Your task to perform on an android device: turn off notifications in google photos Image 0: 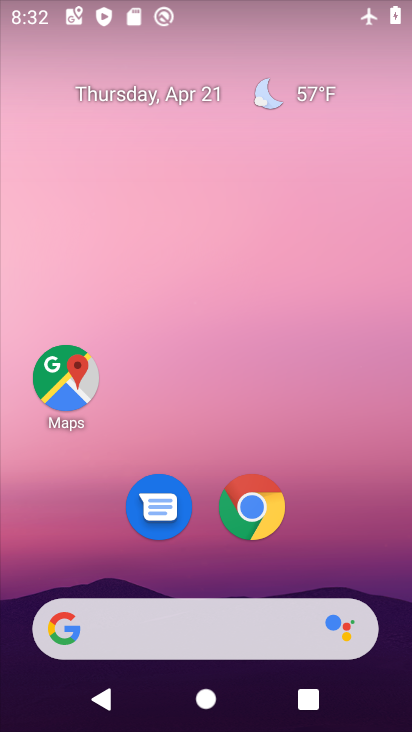
Step 0: drag from (340, 506) to (349, 10)
Your task to perform on an android device: turn off notifications in google photos Image 1: 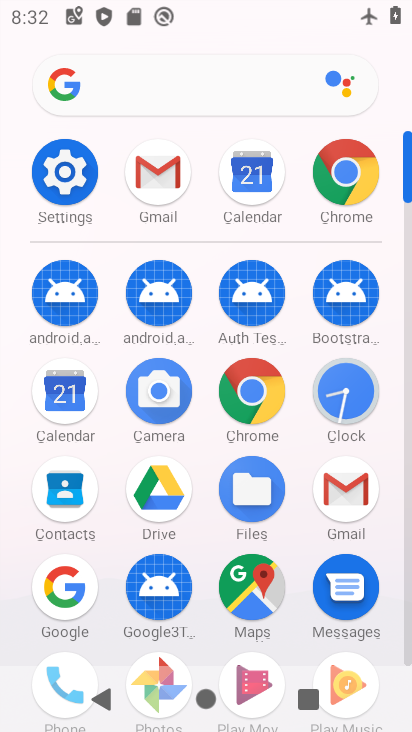
Step 1: click (158, 168)
Your task to perform on an android device: turn off notifications in google photos Image 2: 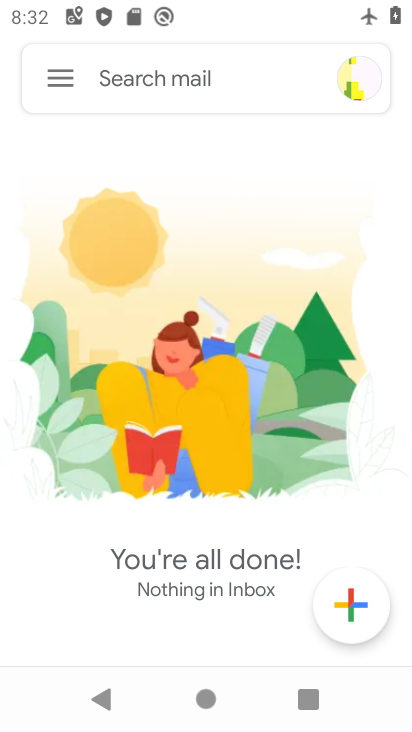
Step 2: press home button
Your task to perform on an android device: turn off notifications in google photos Image 3: 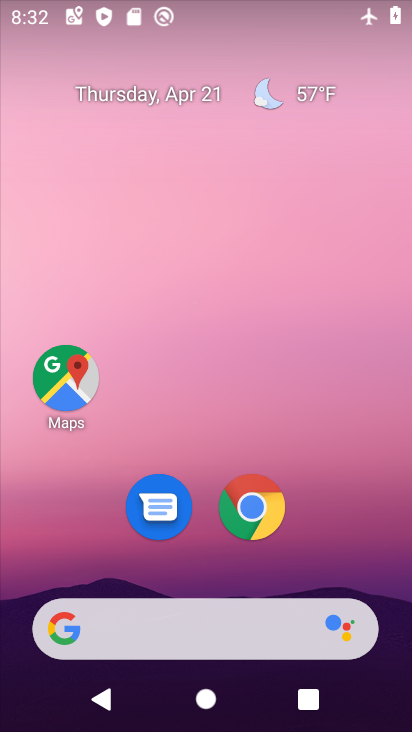
Step 3: drag from (375, 568) to (312, 0)
Your task to perform on an android device: turn off notifications in google photos Image 4: 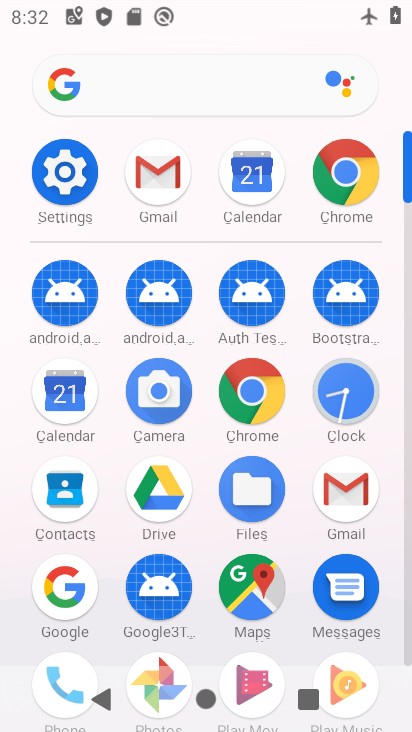
Step 4: click (407, 646)
Your task to perform on an android device: turn off notifications in google photos Image 5: 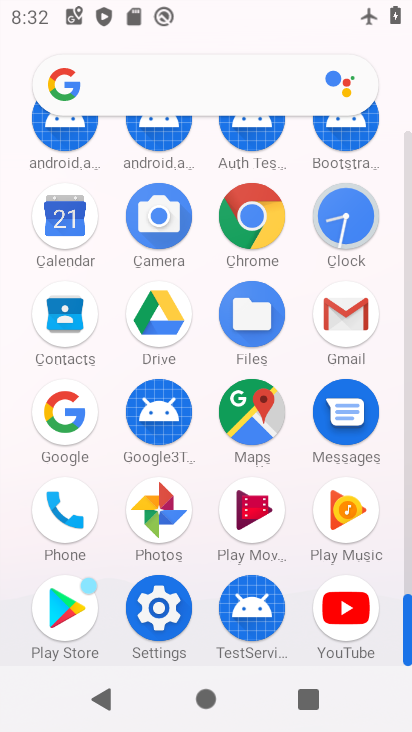
Step 5: click (172, 508)
Your task to perform on an android device: turn off notifications in google photos Image 6: 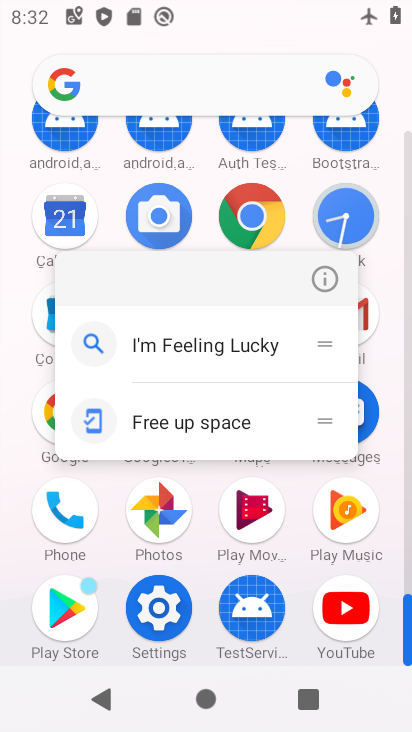
Step 6: click (324, 270)
Your task to perform on an android device: turn off notifications in google photos Image 7: 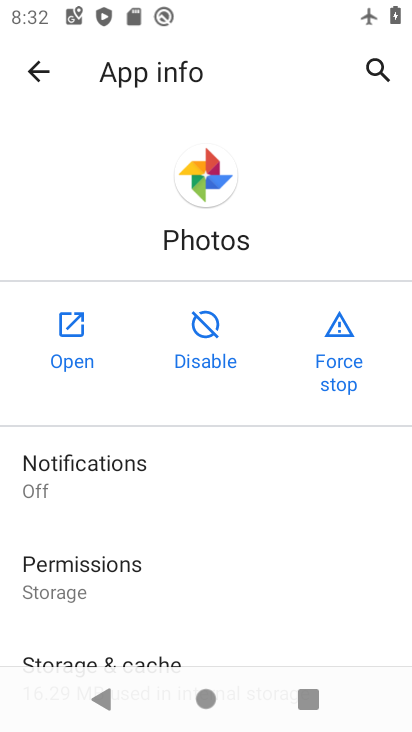
Step 7: task complete